Your task to perform on an android device: toggle pop-ups in chrome Image 0: 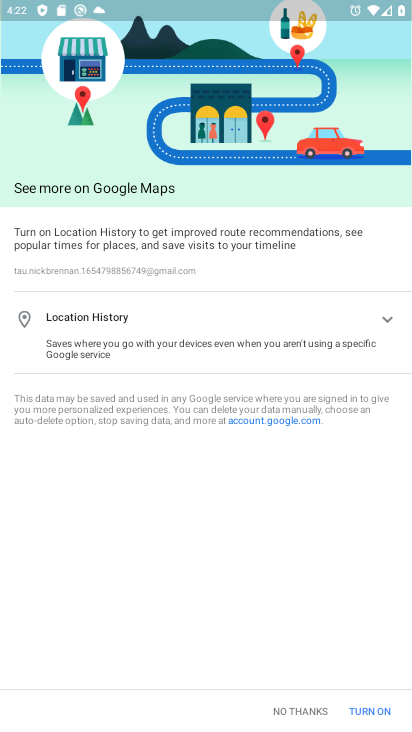
Step 0: press home button
Your task to perform on an android device: toggle pop-ups in chrome Image 1: 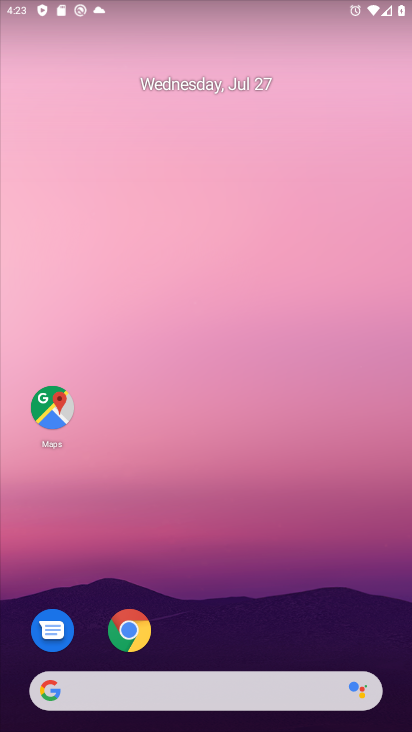
Step 1: click (131, 631)
Your task to perform on an android device: toggle pop-ups in chrome Image 2: 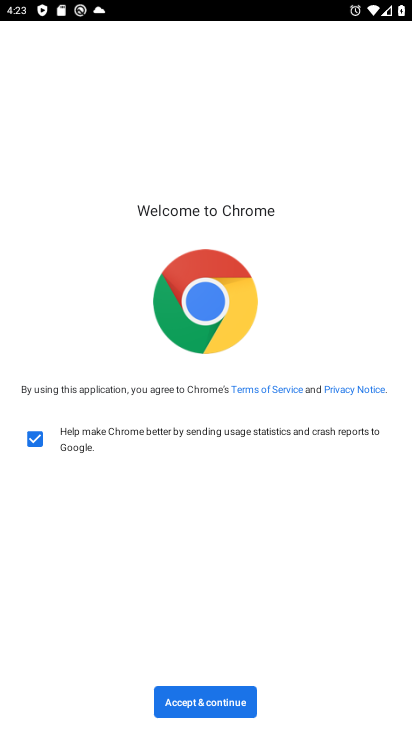
Step 2: click (204, 705)
Your task to perform on an android device: toggle pop-ups in chrome Image 3: 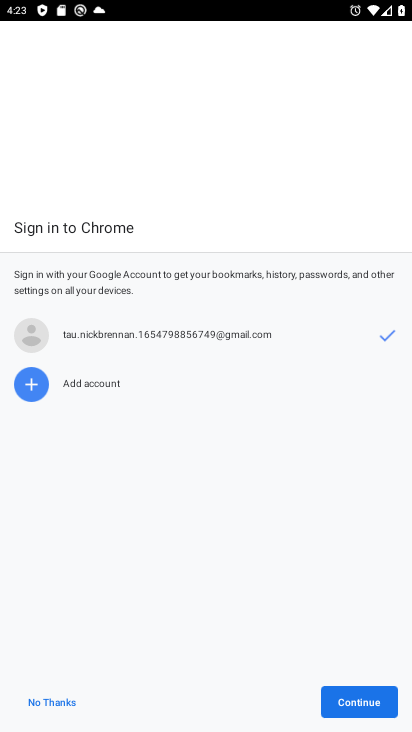
Step 3: click (361, 704)
Your task to perform on an android device: toggle pop-ups in chrome Image 4: 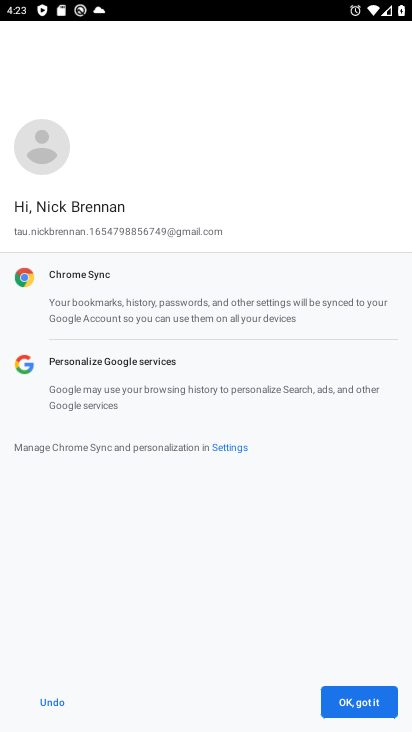
Step 4: click (361, 704)
Your task to perform on an android device: toggle pop-ups in chrome Image 5: 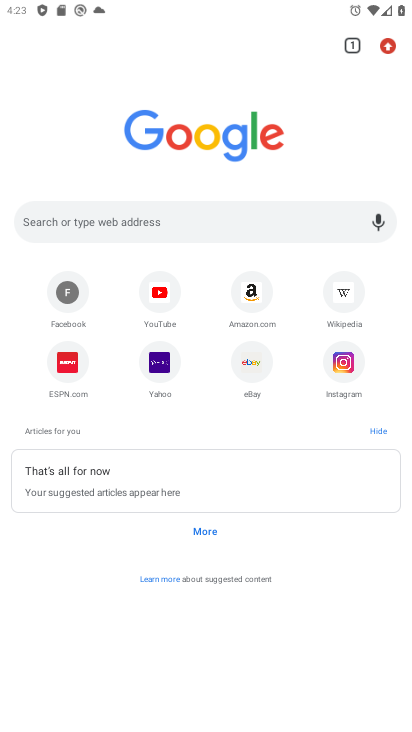
Step 5: click (386, 43)
Your task to perform on an android device: toggle pop-ups in chrome Image 6: 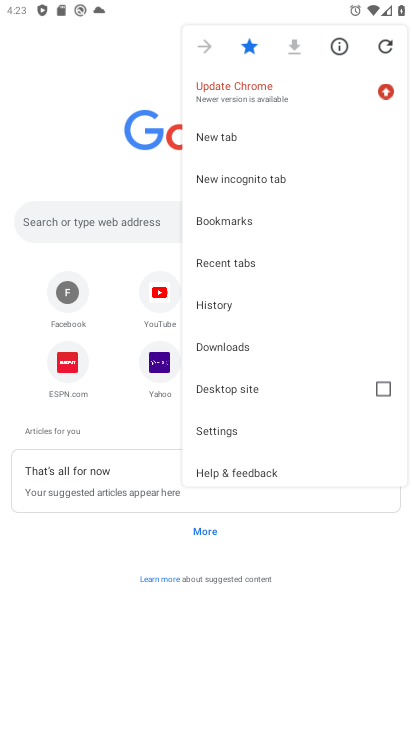
Step 6: click (222, 431)
Your task to perform on an android device: toggle pop-ups in chrome Image 7: 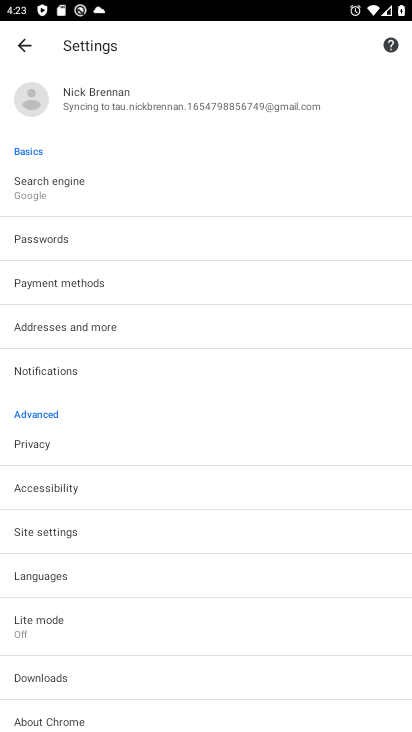
Step 7: click (54, 539)
Your task to perform on an android device: toggle pop-ups in chrome Image 8: 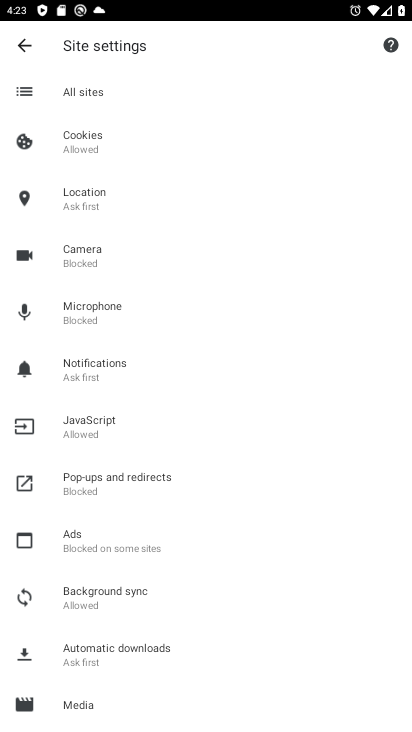
Step 8: click (95, 481)
Your task to perform on an android device: toggle pop-ups in chrome Image 9: 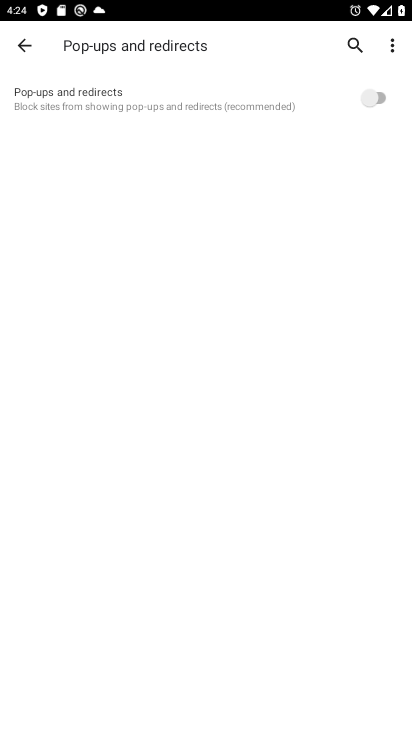
Step 9: click (375, 97)
Your task to perform on an android device: toggle pop-ups in chrome Image 10: 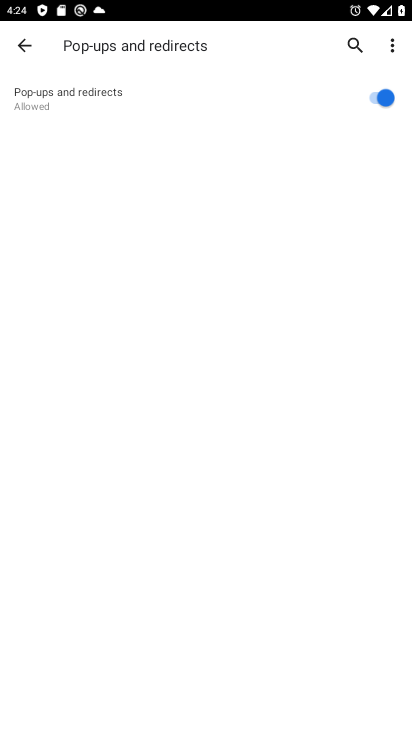
Step 10: task complete